Your task to perform on an android device: turn on translation in the chrome app Image 0: 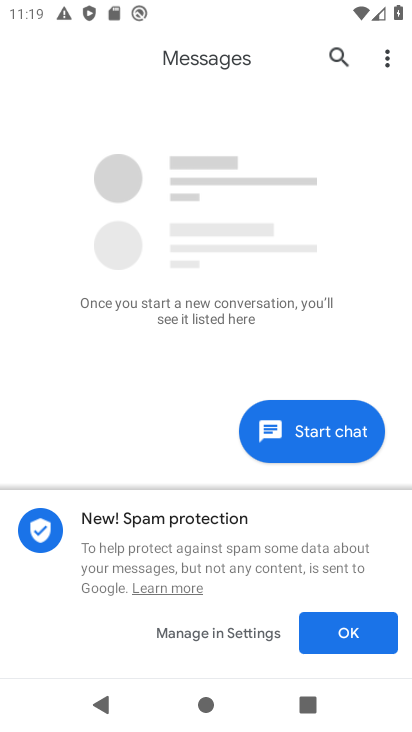
Step 0: press back button
Your task to perform on an android device: turn on translation in the chrome app Image 1: 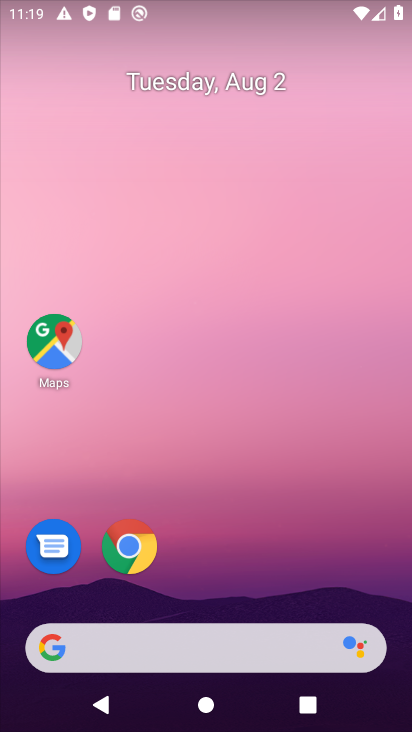
Step 1: click (119, 551)
Your task to perform on an android device: turn on translation in the chrome app Image 2: 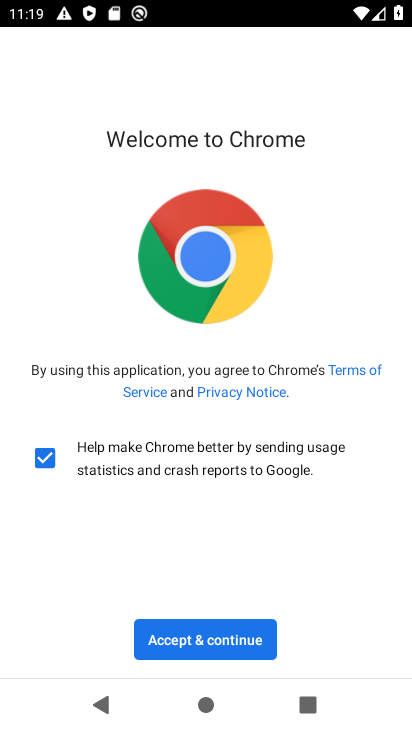
Step 2: click (209, 648)
Your task to perform on an android device: turn on translation in the chrome app Image 3: 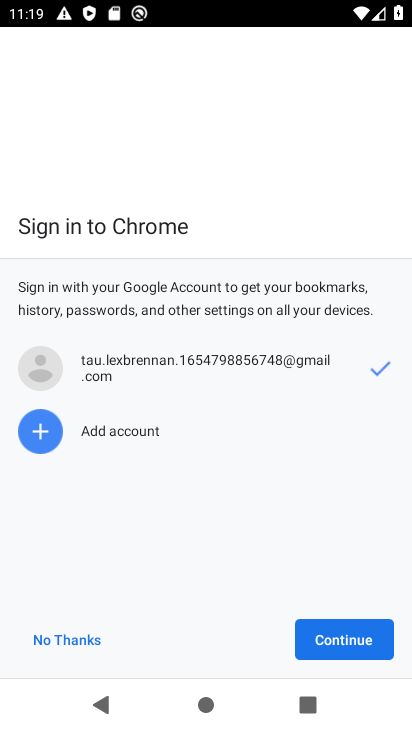
Step 3: click (323, 645)
Your task to perform on an android device: turn on translation in the chrome app Image 4: 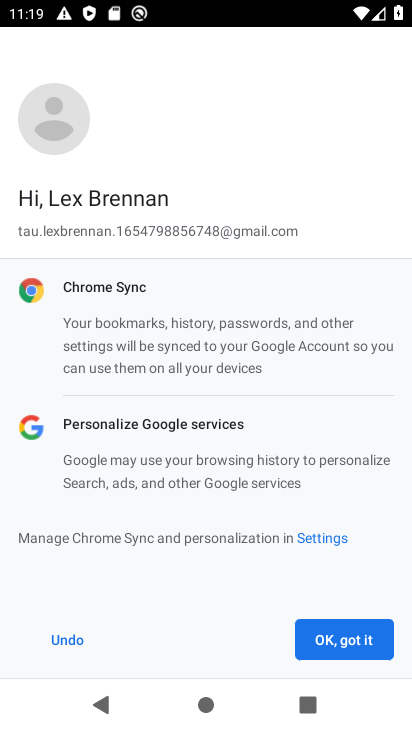
Step 4: click (346, 639)
Your task to perform on an android device: turn on translation in the chrome app Image 5: 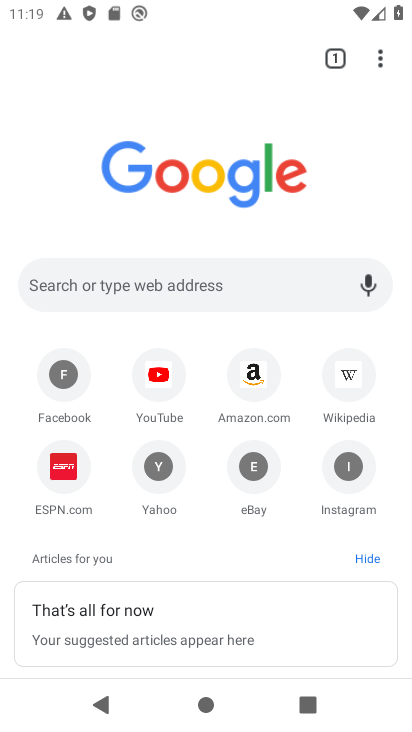
Step 5: click (378, 62)
Your task to perform on an android device: turn on translation in the chrome app Image 6: 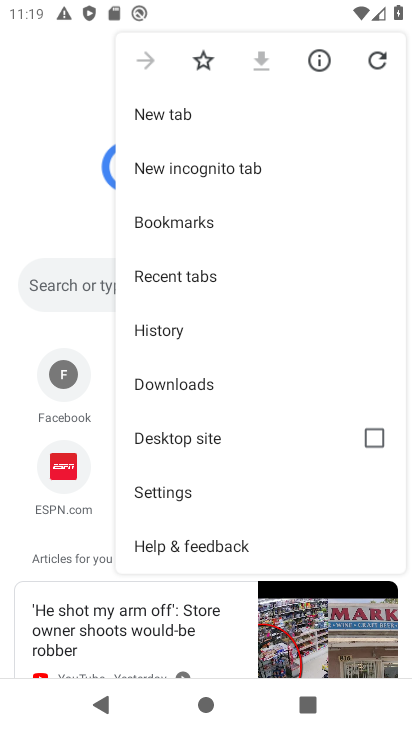
Step 6: click (191, 497)
Your task to perform on an android device: turn on translation in the chrome app Image 7: 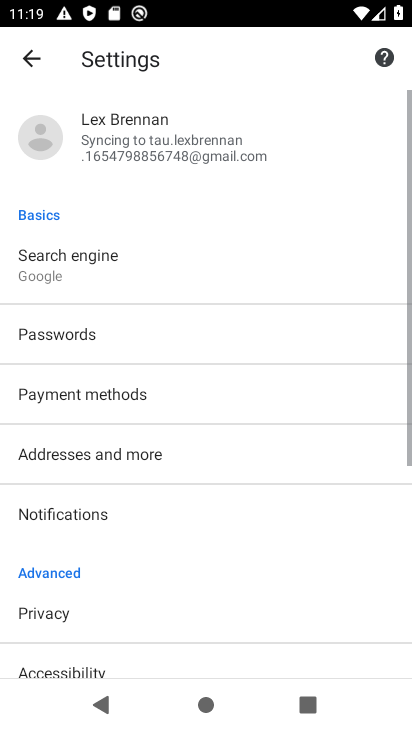
Step 7: drag from (151, 617) to (213, 218)
Your task to perform on an android device: turn on translation in the chrome app Image 8: 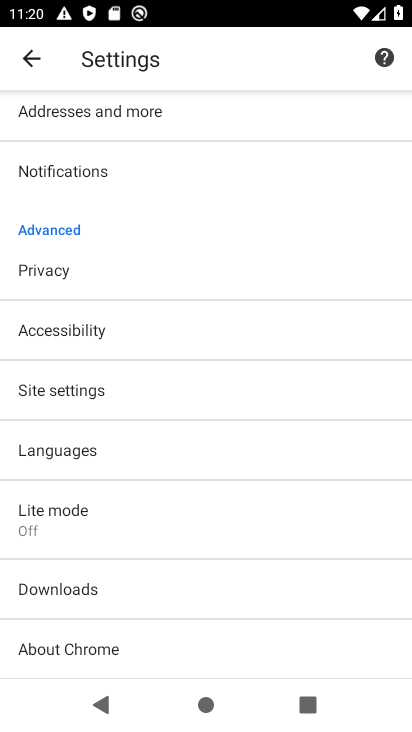
Step 8: click (97, 460)
Your task to perform on an android device: turn on translation in the chrome app Image 9: 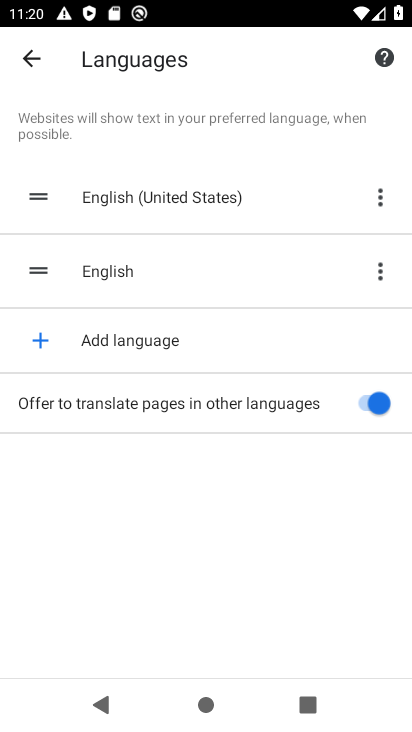
Step 9: task complete